Your task to perform on an android device: Add bose quietcomfort 35 to the cart on costco.com Image 0: 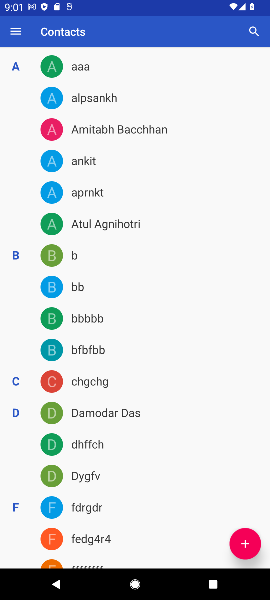
Step 0: press home button
Your task to perform on an android device: Add bose quietcomfort 35 to the cart on costco.com Image 1: 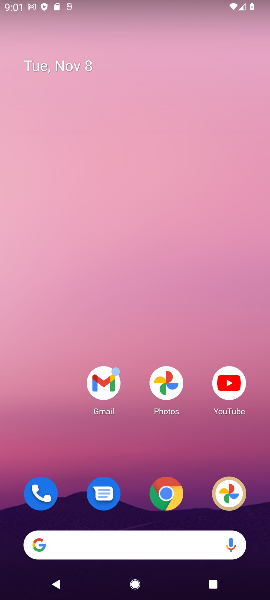
Step 1: click (167, 498)
Your task to perform on an android device: Add bose quietcomfort 35 to the cart on costco.com Image 2: 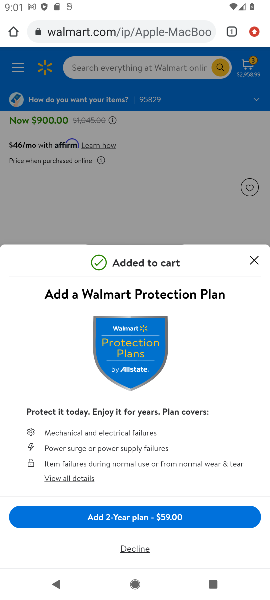
Step 2: click (134, 37)
Your task to perform on an android device: Add bose quietcomfort 35 to the cart on costco.com Image 3: 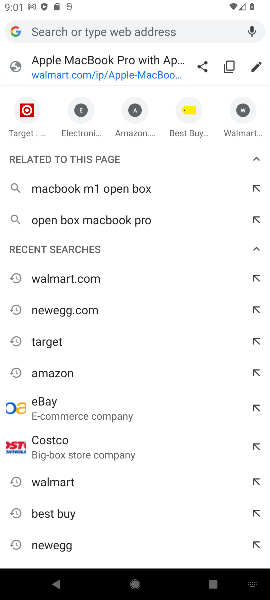
Step 3: click (54, 454)
Your task to perform on an android device: Add bose quietcomfort 35 to the cart on costco.com Image 4: 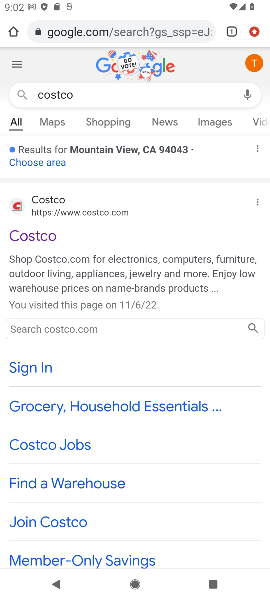
Step 4: click (37, 239)
Your task to perform on an android device: Add bose quietcomfort 35 to the cart on costco.com Image 5: 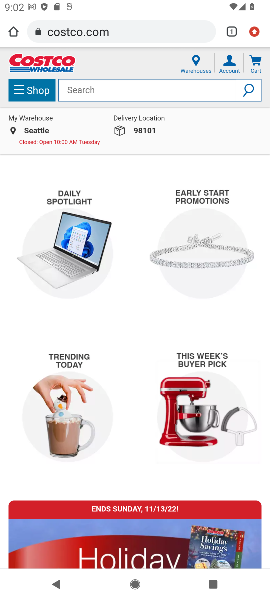
Step 5: click (108, 92)
Your task to perform on an android device: Add bose quietcomfort 35 to the cart on costco.com Image 6: 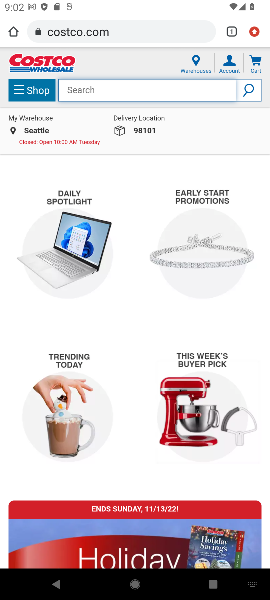
Step 6: type "bose quietcomfort 35"
Your task to perform on an android device: Add bose quietcomfort 35 to the cart on costco.com Image 7: 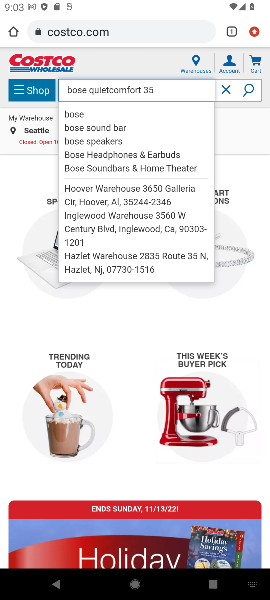
Step 7: click (251, 91)
Your task to perform on an android device: Add bose quietcomfort 35 to the cart on costco.com Image 8: 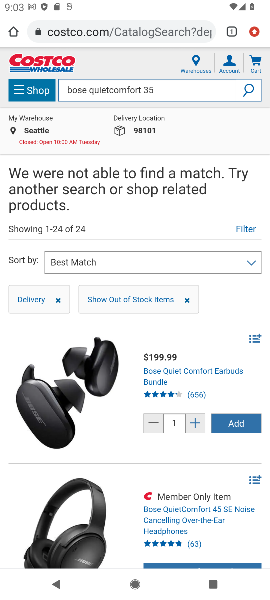
Step 8: task complete